Your task to perform on an android device: Is it going to rain tomorrow? Image 0: 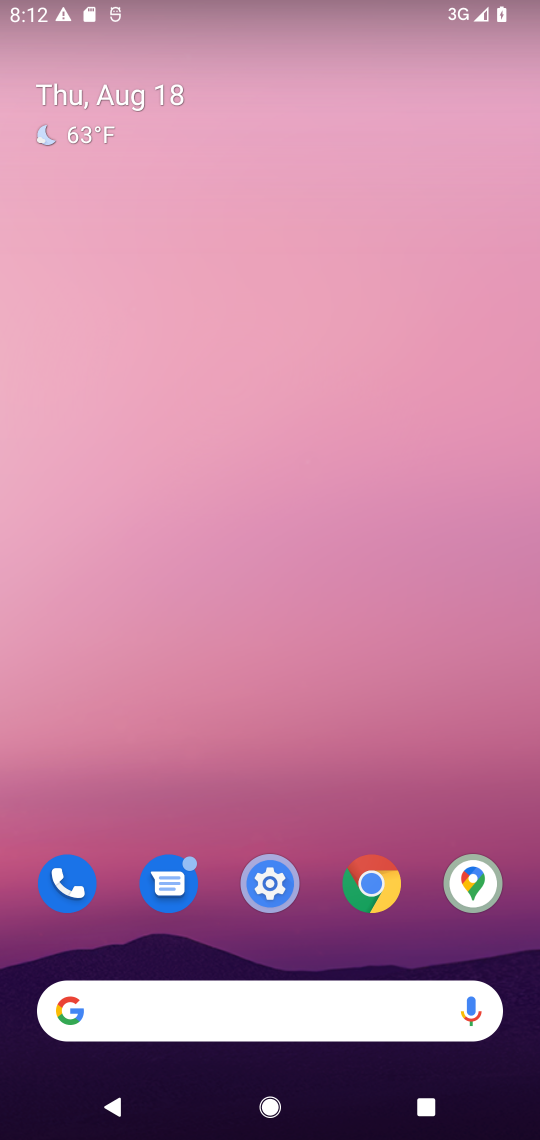
Step 0: click (120, 1016)
Your task to perform on an android device: Is it going to rain tomorrow? Image 1: 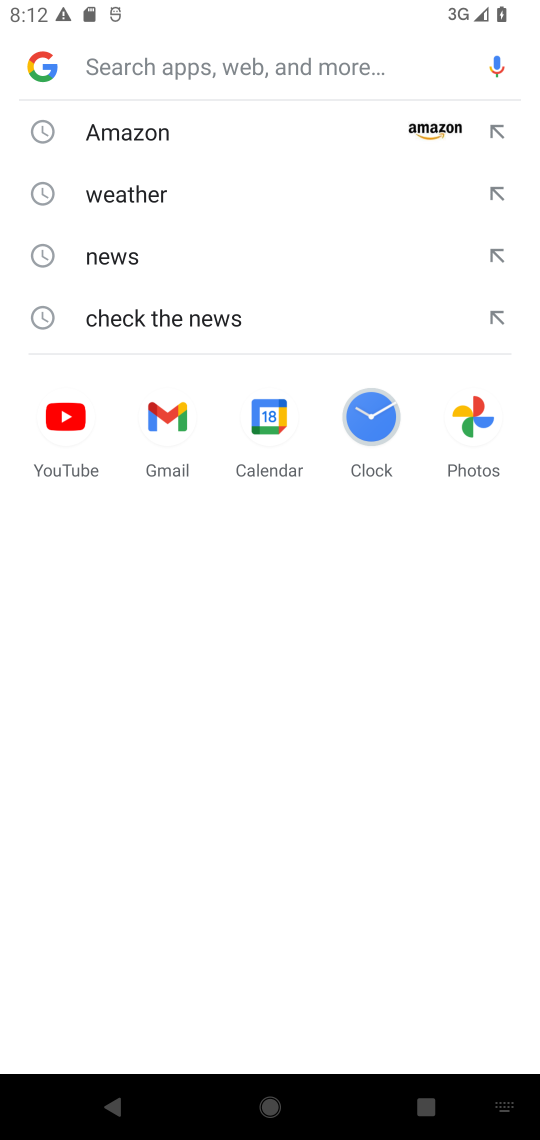
Step 1: type "Is it going to rain tomorrow?"
Your task to perform on an android device: Is it going to rain tomorrow? Image 2: 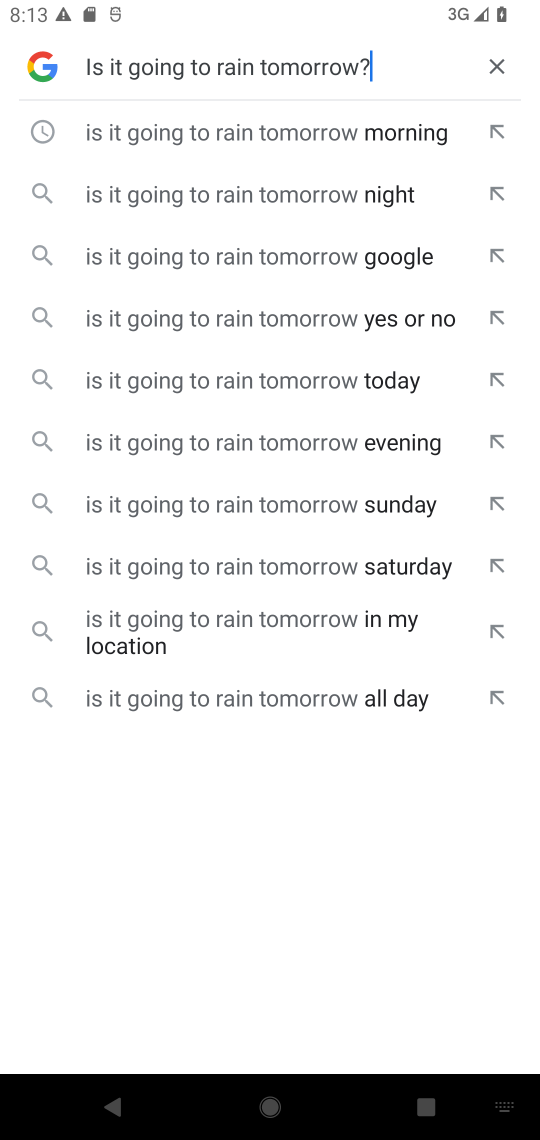
Step 2: type ""
Your task to perform on an android device: Is it going to rain tomorrow? Image 3: 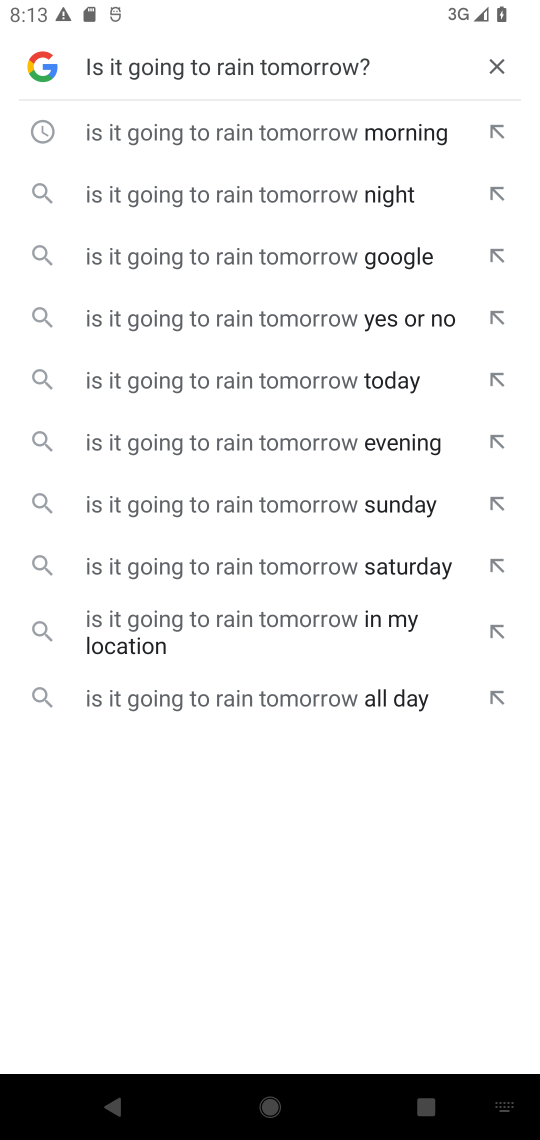
Step 3: type ""
Your task to perform on an android device: Is it going to rain tomorrow? Image 4: 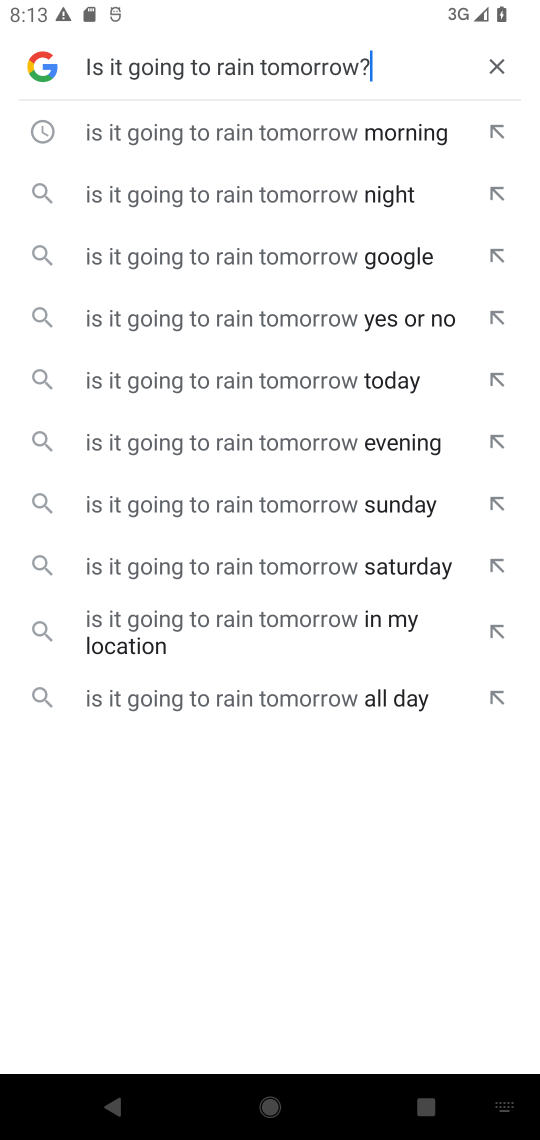
Step 4: task complete